Your task to perform on an android device: Do I have any events today? Image 0: 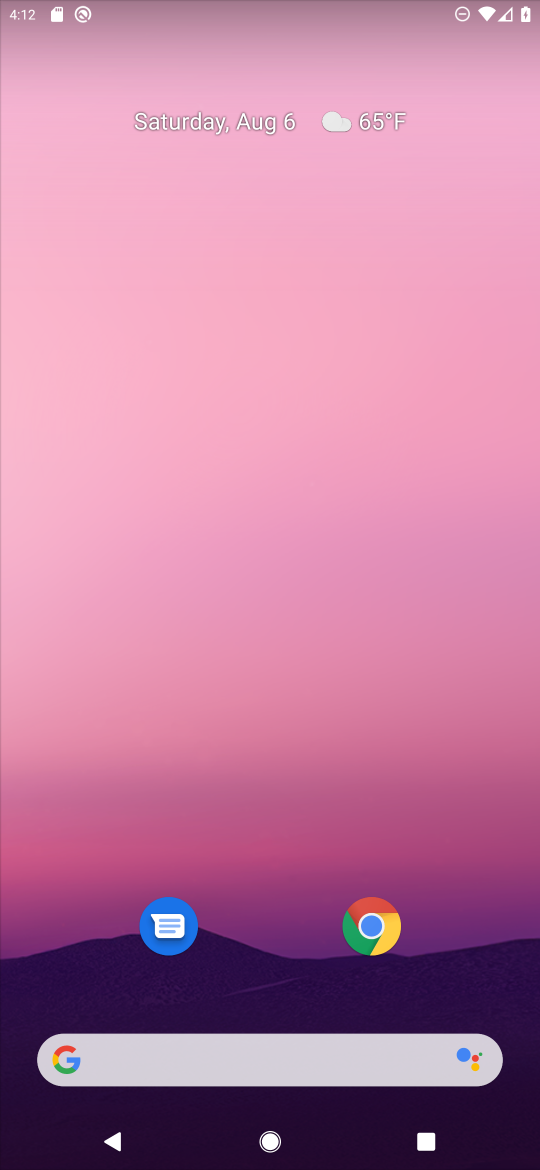
Step 0: drag from (260, 933) to (264, 275)
Your task to perform on an android device: Do I have any events today? Image 1: 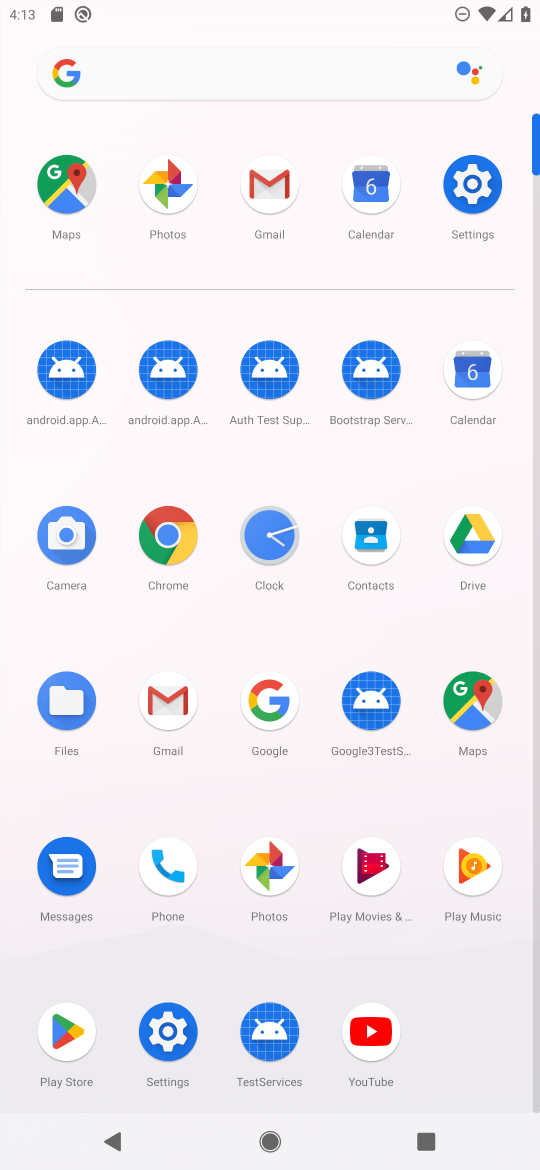
Step 1: click (454, 372)
Your task to perform on an android device: Do I have any events today? Image 2: 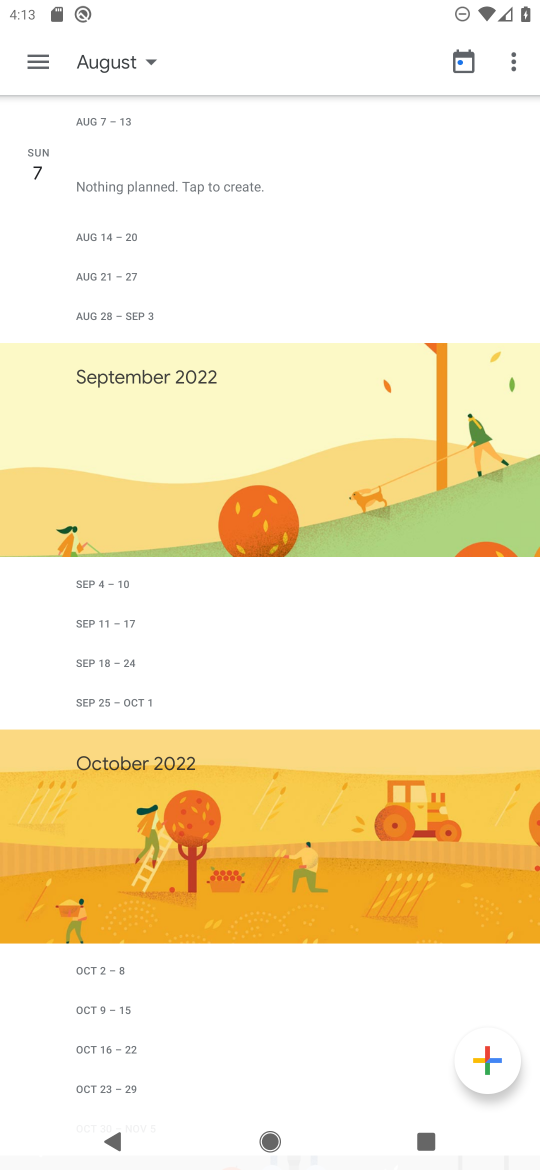
Step 2: click (132, 63)
Your task to perform on an android device: Do I have any events today? Image 3: 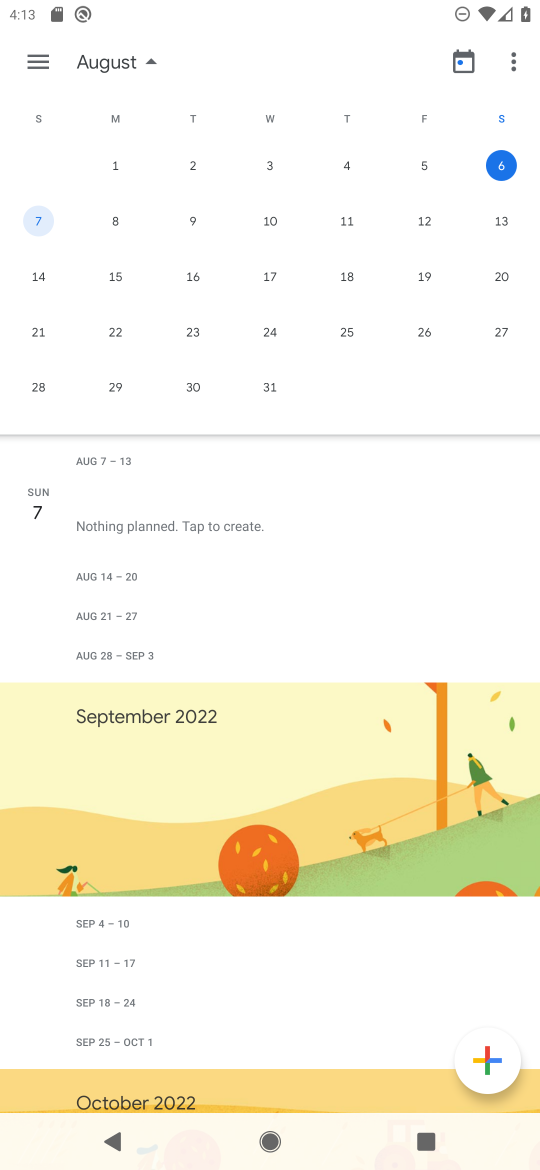
Step 3: click (494, 171)
Your task to perform on an android device: Do I have any events today? Image 4: 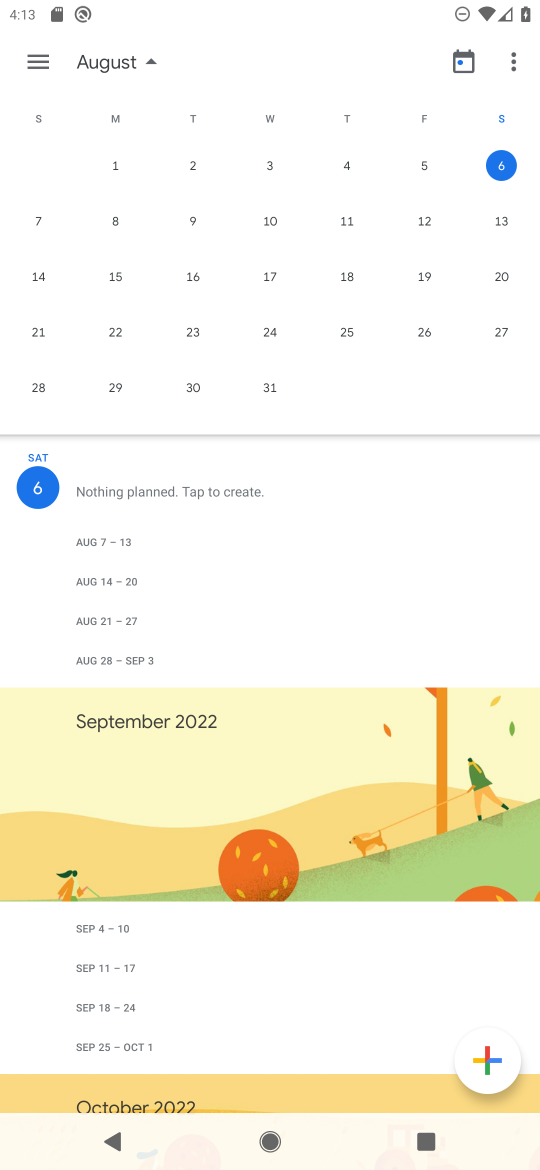
Step 4: task complete